Your task to perform on an android device: Check the weather Image 0: 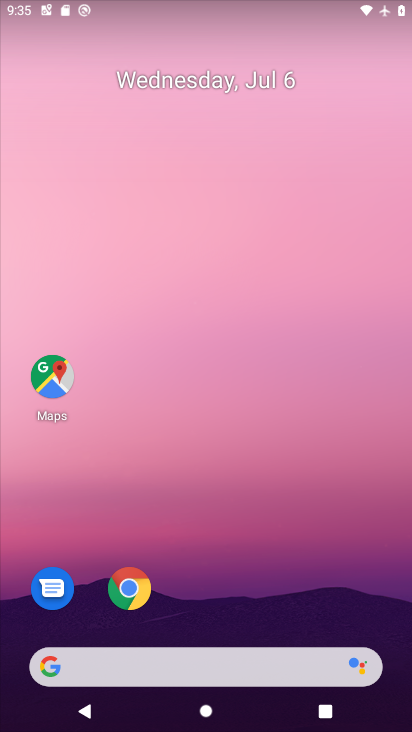
Step 0: drag from (160, 667) to (291, 156)
Your task to perform on an android device: Check the weather Image 1: 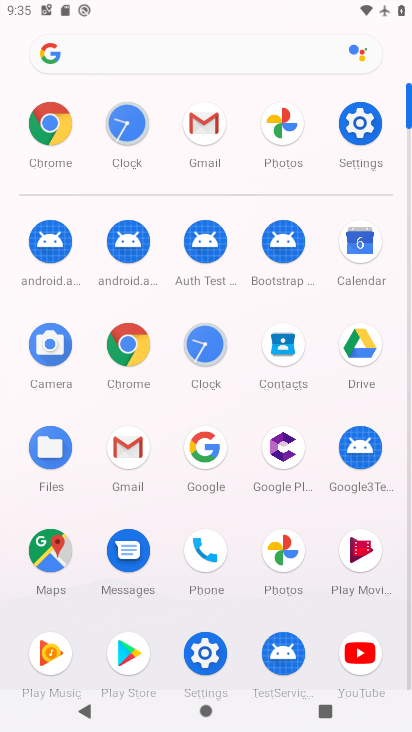
Step 1: click (204, 464)
Your task to perform on an android device: Check the weather Image 2: 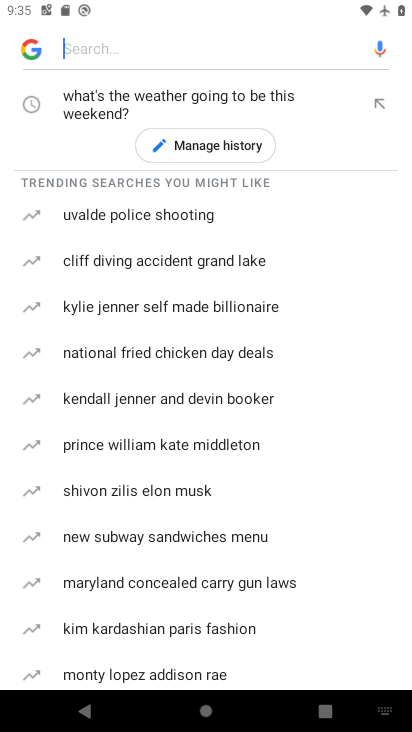
Step 2: type "weather"
Your task to perform on an android device: Check the weather Image 3: 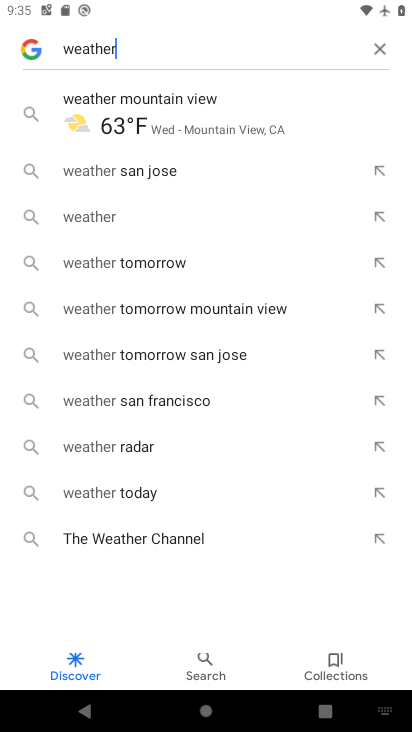
Step 3: click (192, 107)
Your task to perform on an android device: Check the weather Image 4: 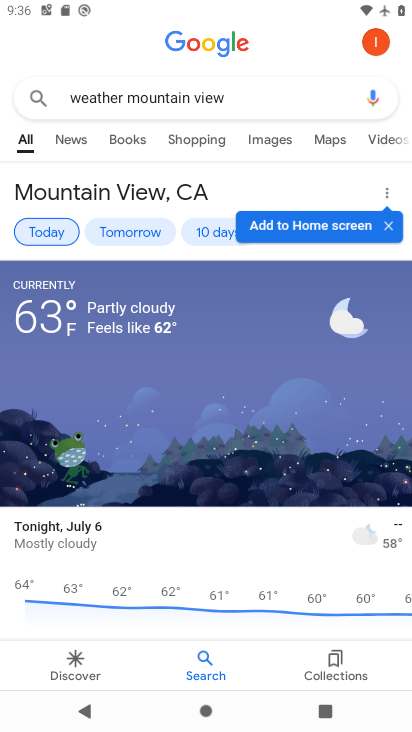
Step 4: task complete